Your task to perform on an android device: Empty the shopping cart on walmart.com. Add razer blackwidow to the cart on walmart.com, then select checkout. Image 0: 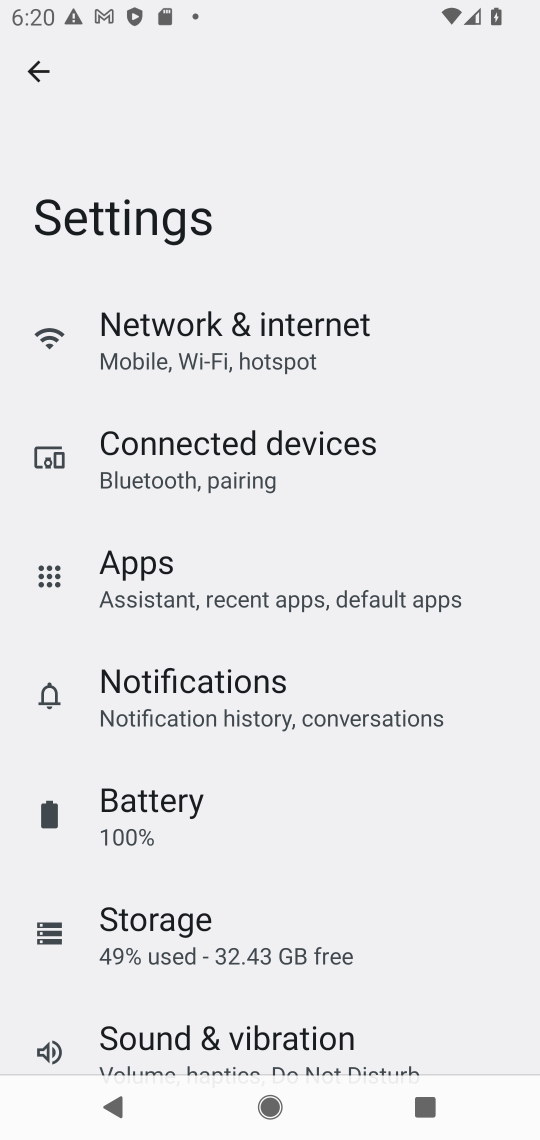
Step 0: press home button
Your task to perform on an android device: Empty the shopping cart on walmart.com. Add razer blackwidow to the cart on walmart.com, then select checkout. Image 1: 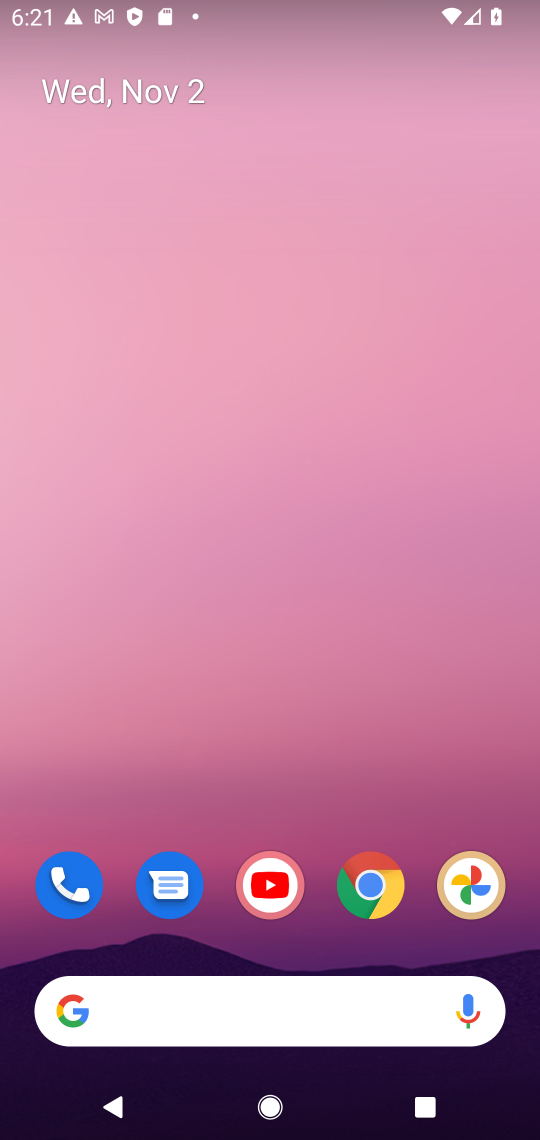
Step 1: click (369, 885)
Your task to perform on an android device: Empty the shopping cart on walmart.com. Add razer blackwidow to the cart on walmart.com, then select checkout. Image 2: 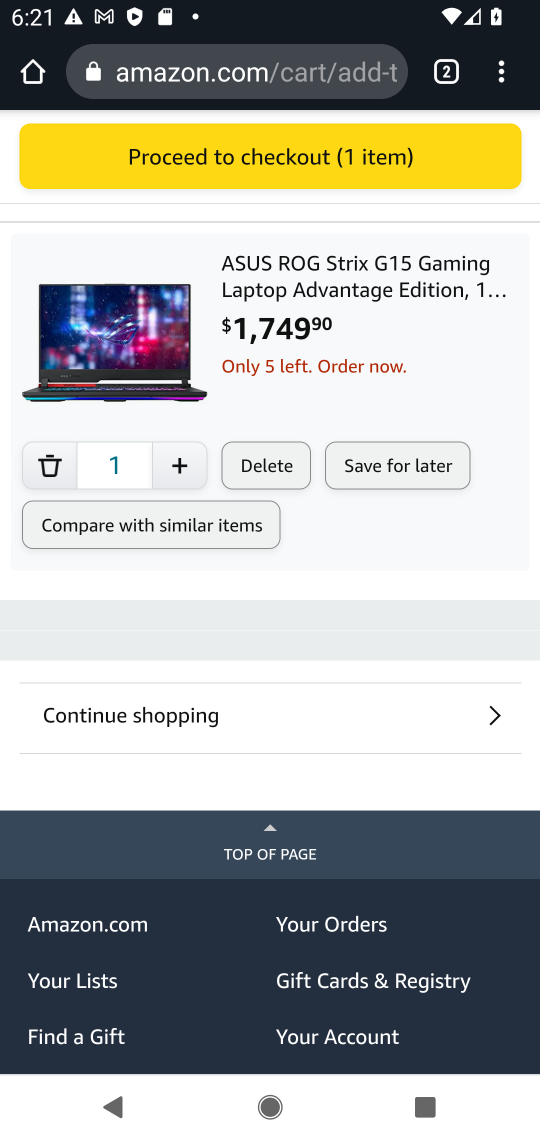
Step 2: click (502, 77)
Your task to perform on an android device: Empty the shopping cart on walmart.com. Add razer blackwidow to the cart on walmart.com, then select checkout. Image 3: 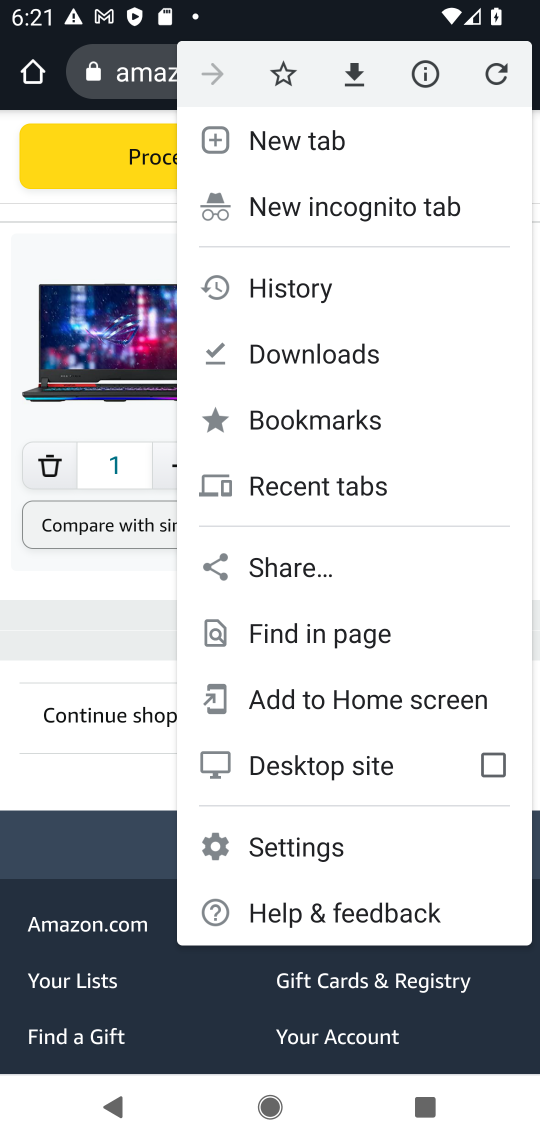
Step 3: click (283, 132)
Your task to perform on an android device: Empty the shopping cart on walmart.com. Add razer blackwidow to the cart on walmart.com, then select checkout. Image 4: 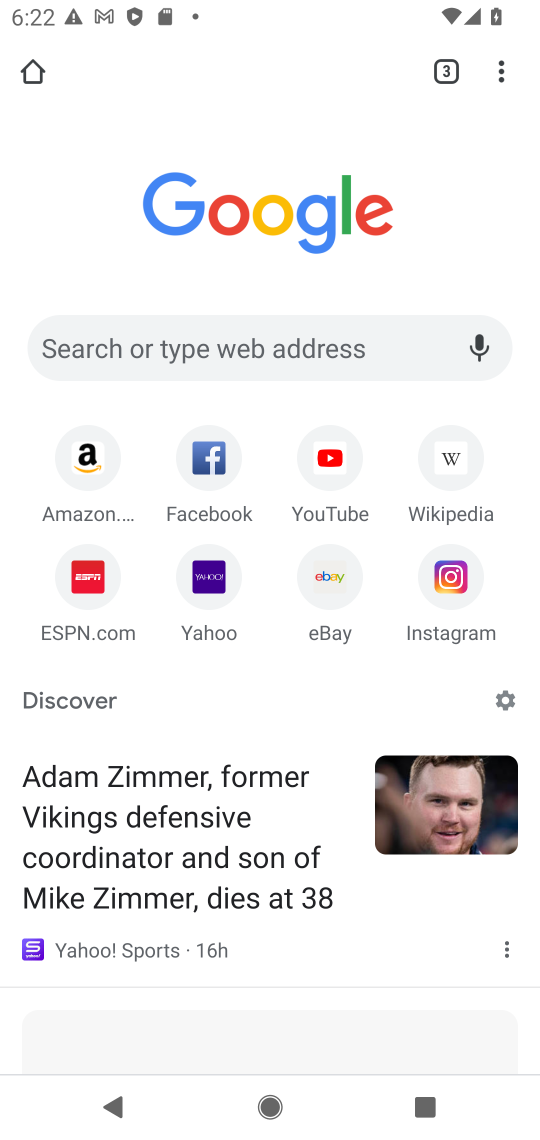
Step 4: click (214, 362)
Your task to perform on an android device: Empty the shopping cart on walmart.com. Add razer blackwidow to the cart on walmart.com, then select checkout. Image 5: 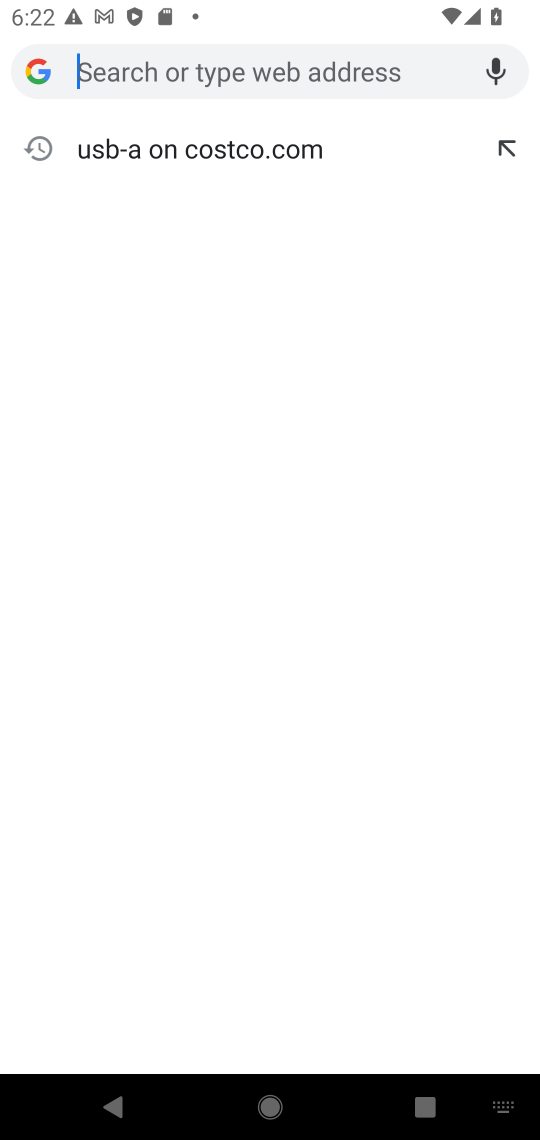
Step 5: type "walmart.com."
Your task to perform on an android device: Empty the shopping cart on walmart.com. Add razer blackwidow to the cart on walmart.com, then select checkout. Image 6: 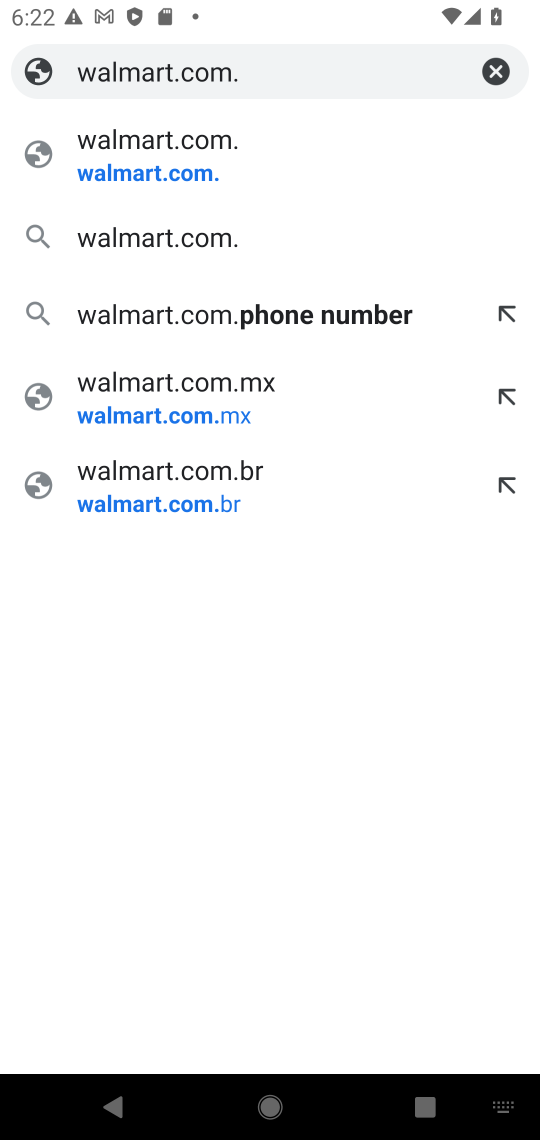
Step 6: click (180, 151)
Your task to perform on an android device: Empty the shopping cart on walmart.com. Add razer blackwidow to the cart on walmart.com, then select checkout. Image 7: 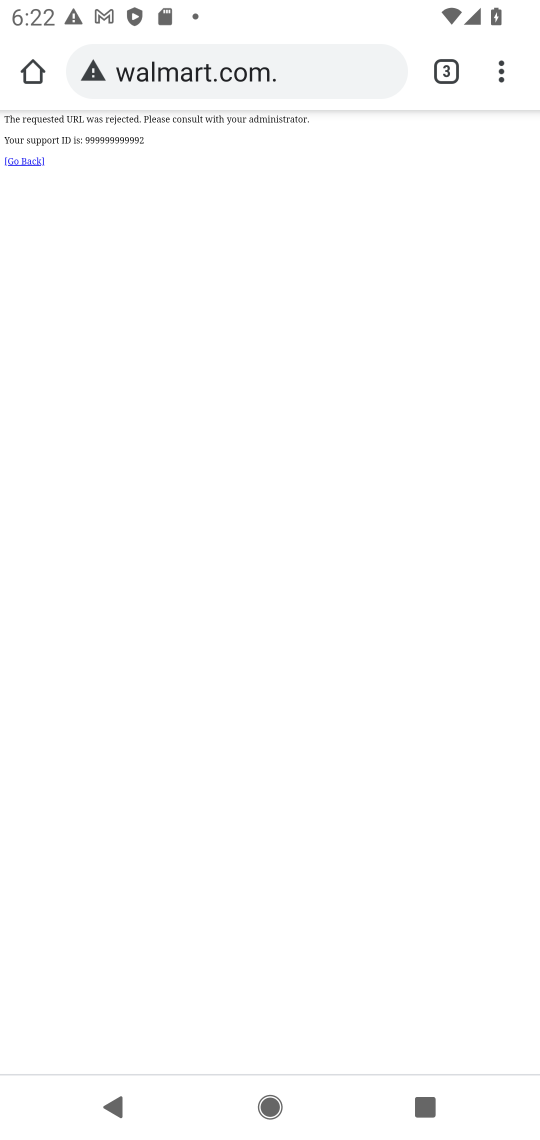
Step 7: task complete